Your task to perform on an android device: turn on priority inbox in the gmail app Image 0: 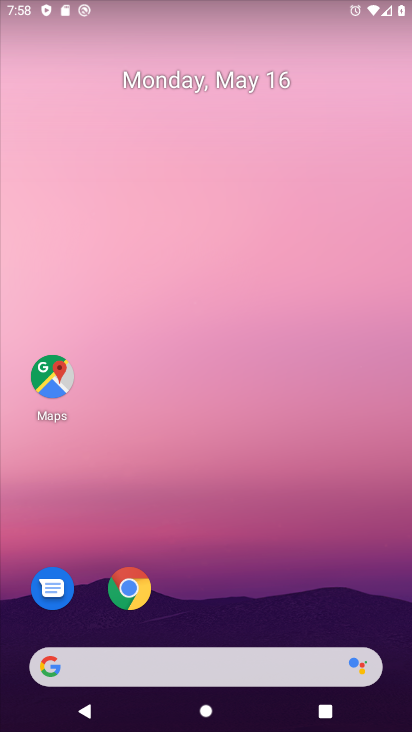
Step 0: drag from (280, 380) to (189, 48)
Your task to perform on an android device: turn on priority inbox in the gmail app Image 1: 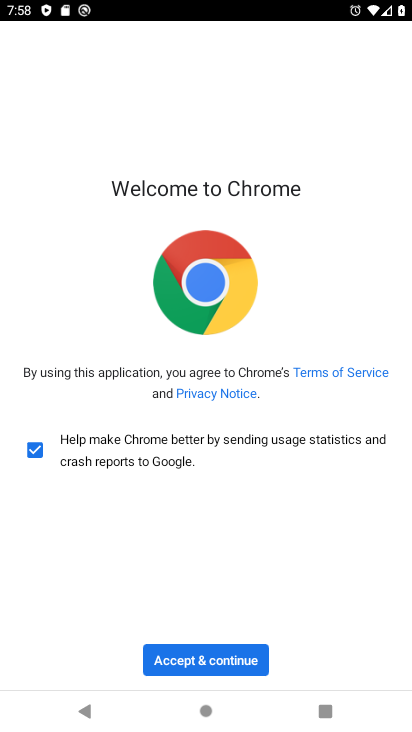
Step 1: click (215, 660)
Your task to perform on an android device: turn on priority inbox in the gmail app Image 2: 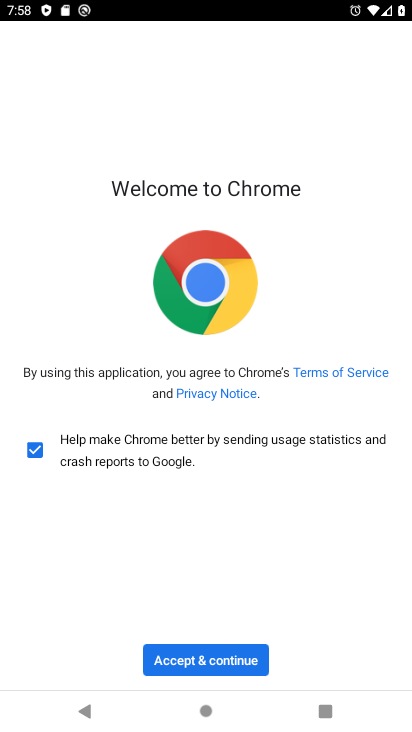
Step 2: click (215, 660)
Your task to perform on an android device: turn on priority inbox in the gmail app Image 3: 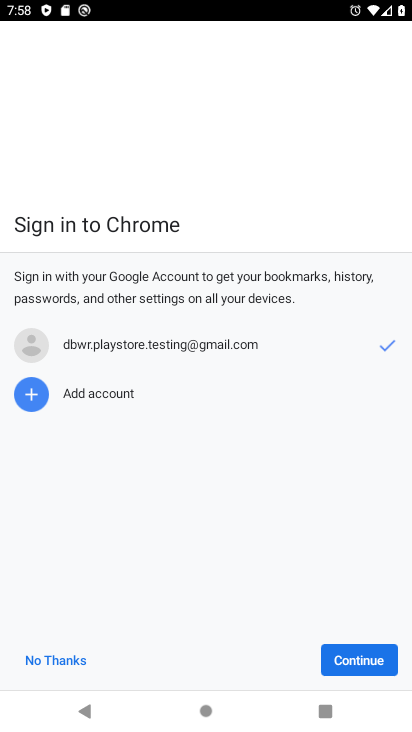
Step 3: click (215, 660)
Your task to perform on an android device: turn on priority inbox in the gmail app Image 4: 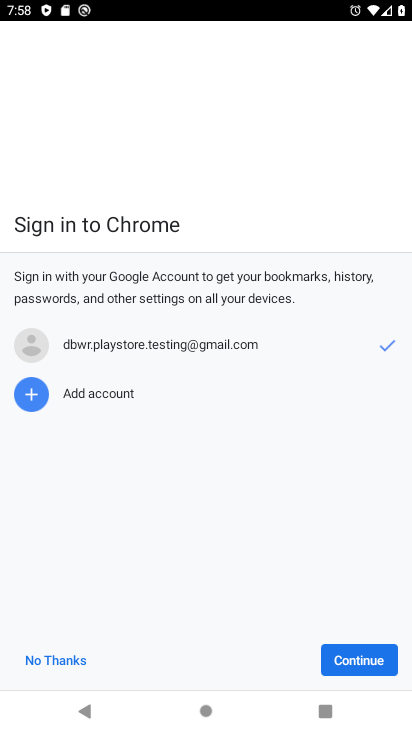
Step 4: click (215, 660)
Your task to perform on an android device: turn on priority inbox in the gmail app Image 5: 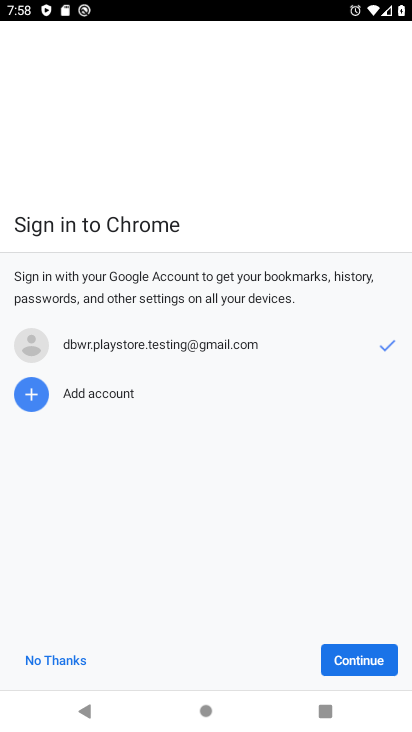
Step 5: press home button
Your task to perform on an android device: turn on priority inbox in the gmail app Image 6: 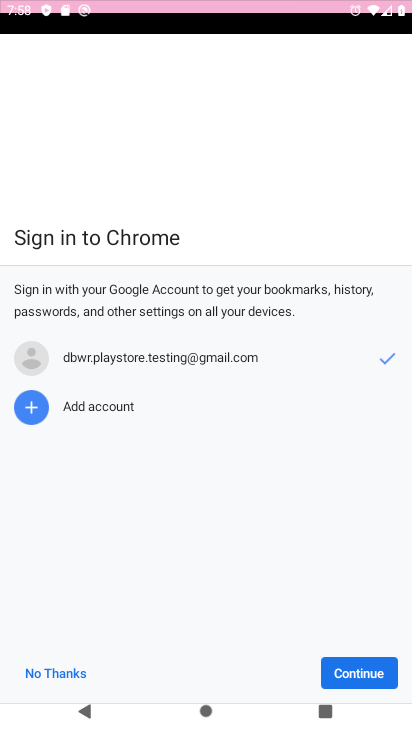
Step 6: press home button
Your task to perform on an android device: turn on priority inbox in the gmail app Image 7: 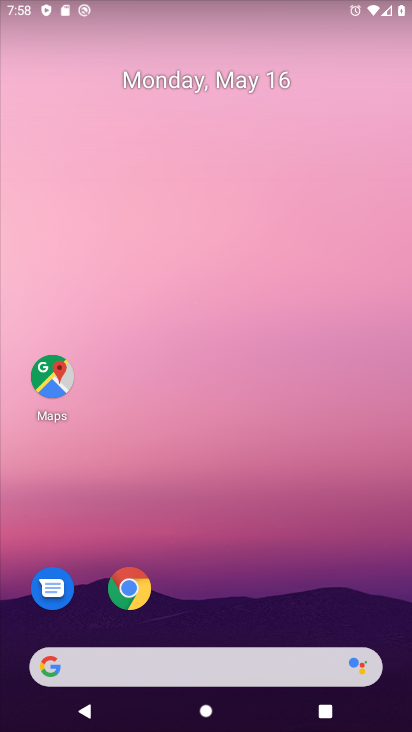
Step 7: drag from (283, 640) to (181, 217)
Your task to perform on an android device: turn on priority inbox in the gmail app Image 8: 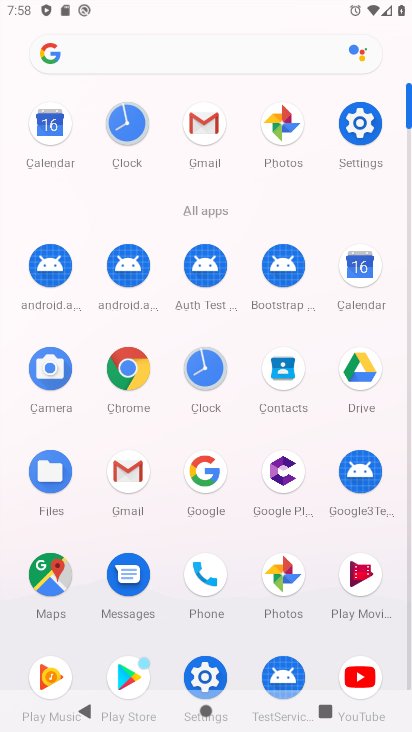
Step 8: click (132, 470)
Your task to perform on an android device: turn on priority inbox in the gmail app Image 9: 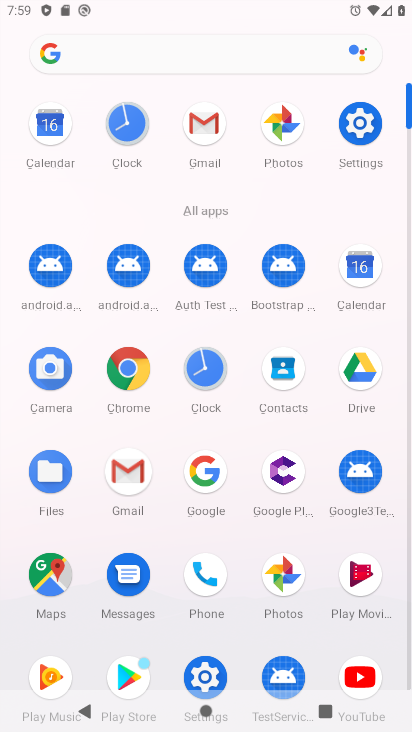
Step 9: click (131, 470)
Your task to perform on an android device: turn on priority inbox in the gmail app Image 10: 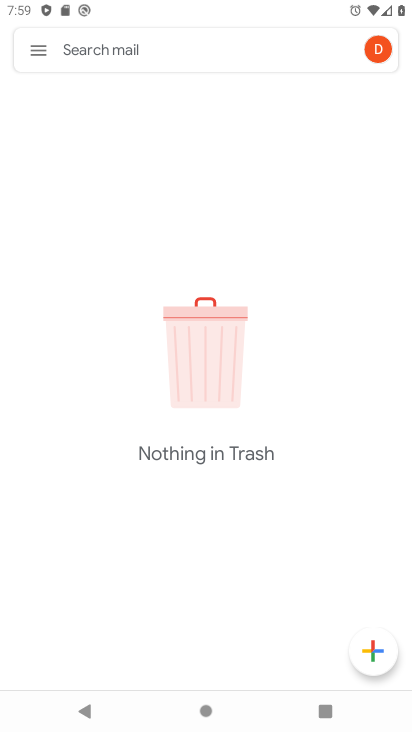
Step 10: click (36, 51)
Your task to perform on an android device: turn on priority inbox in the gmail app Image 11: 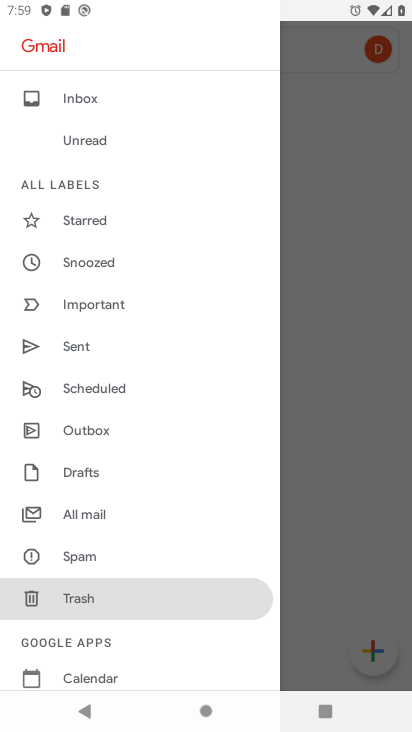
Step 11: drag from (167, 574) to (92, 12)
Your task to perform on an android device: turn on priority inbox in the gmail app Image 12: 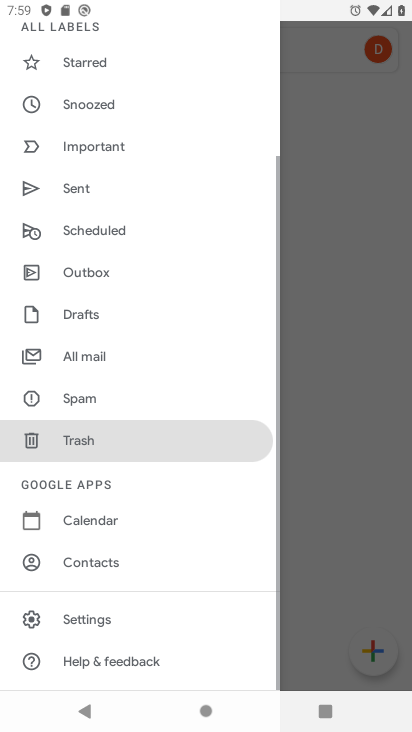
Step 12: click (88, 615)
Your task to perform on an android device: turn on priority inbox in the gmail app Image 13: 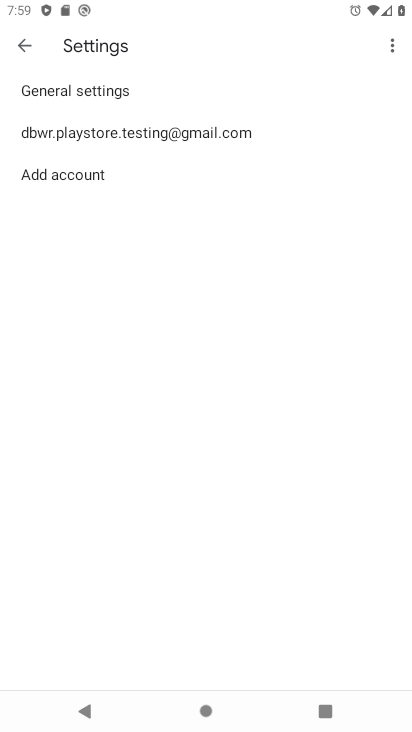
Step 13: click (122, 131)
Your task to perform on an android device: turn on priority inbox in the gmail app Image 14: 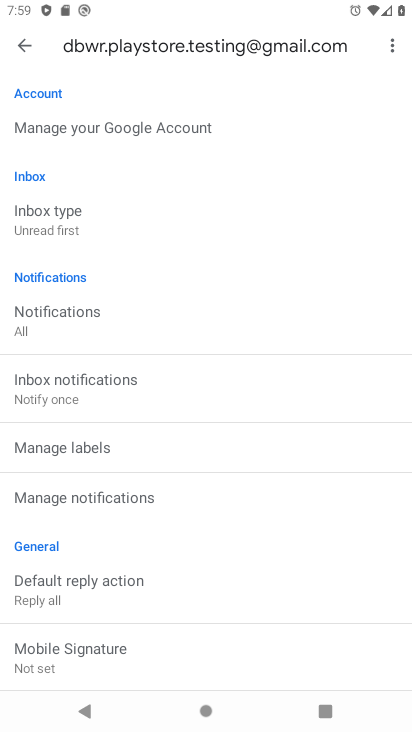
Step 14: click (53, 219)
Your task to perform on an android device: turn on priority inbox in the gmail app Image 15: 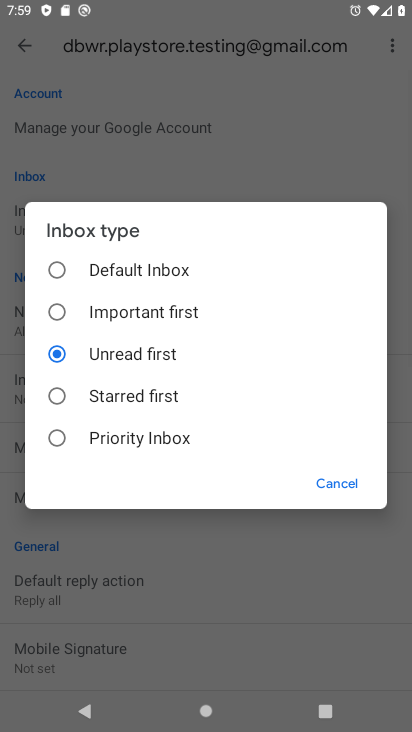
Step 15: click (51, 445)
Your task to perform on an android device: turn on priority inbox in the gmail app Image 16: 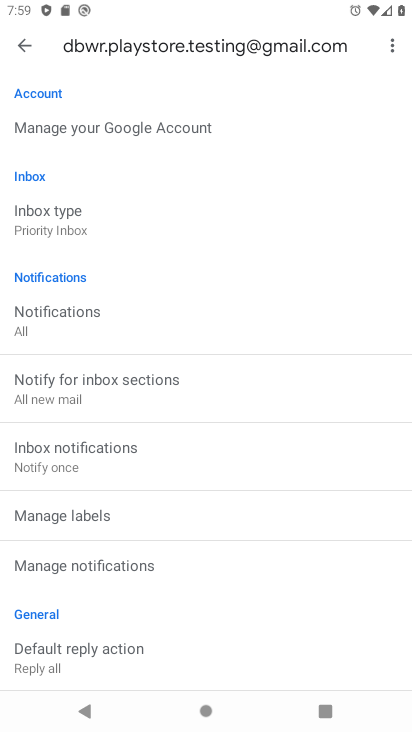
Step 16: task complete